Your task to perform on an android device: check out phone information Image 0: 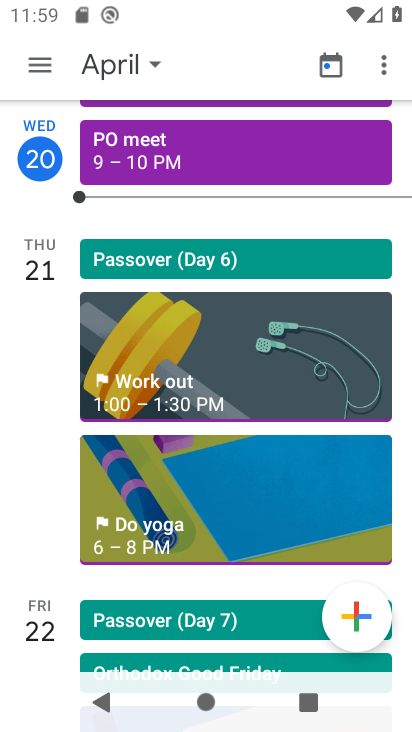
Step 0: press home button
Your task to perform on an android device: check out phone information Image 1: 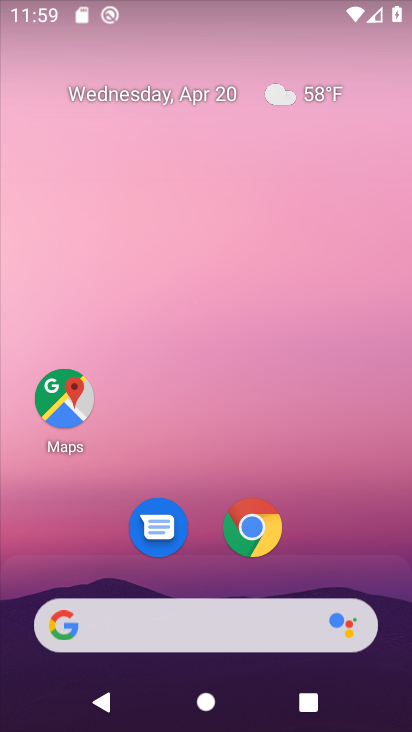
Step 1: drag from (312, 542) to (272, 105)
Your task to perform on an android device: check out phone information Image 2: 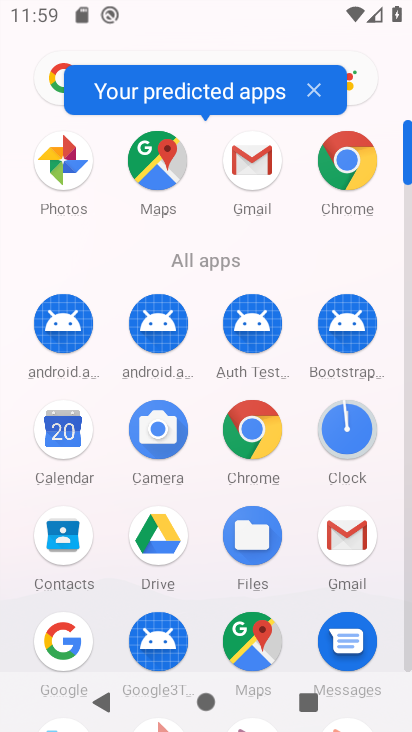
Step 2: drag from (294, 576) to (294, 260)
Your task to perform on an android device: check out phone information Image 3: 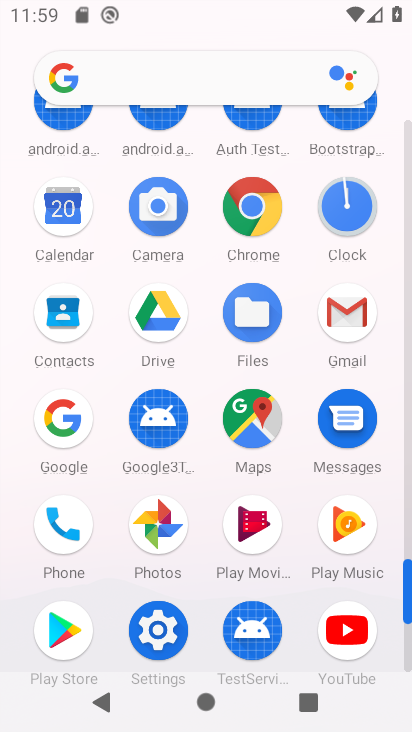
Step 3: drag from (297, 604) to (302, 125)
Your task to perform on an android device: check out phone information Image 4: 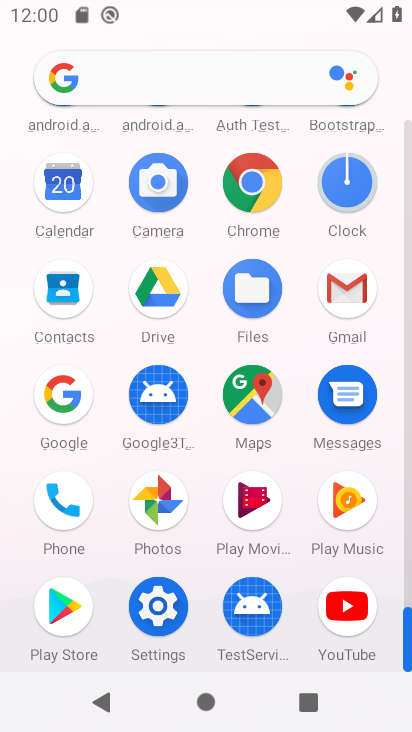
Step 4: drag from (291, 292) to (291, 435)
Your task to perform on an android device: check out phone information Image 5: 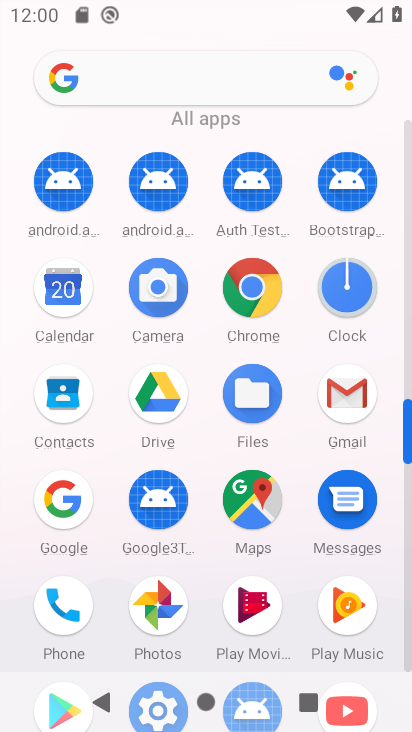
Step 5: click (69, 627)
Your task to perform on an android device: check out phone information Image 6: 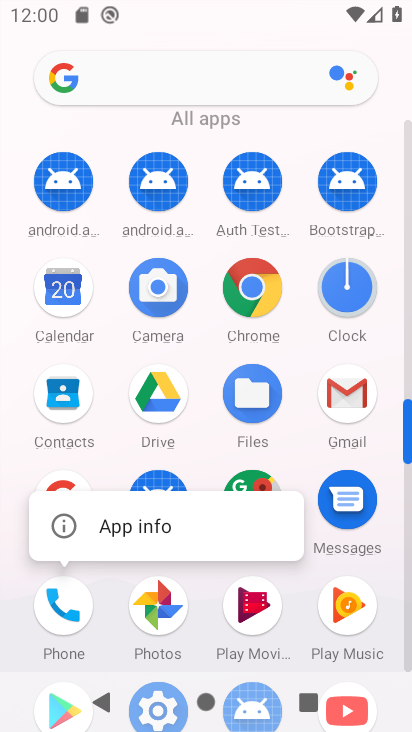
Step 6: click (73, 602)
Your task to perform on an android device: check out phone information Image 7: 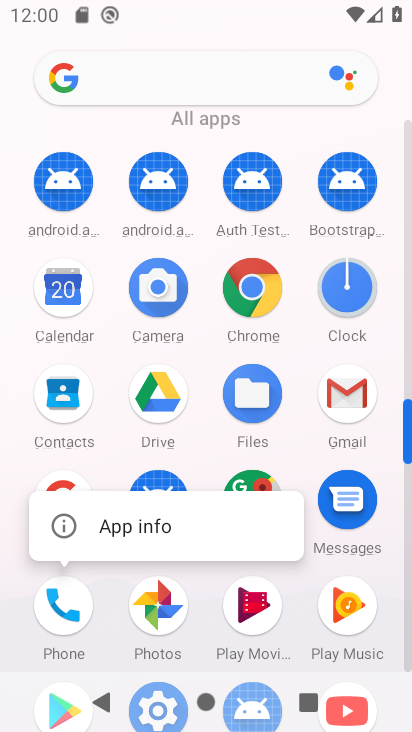
Step 7: click (71, 635)
Your task to perform on an android device: check out phone information Image 8: 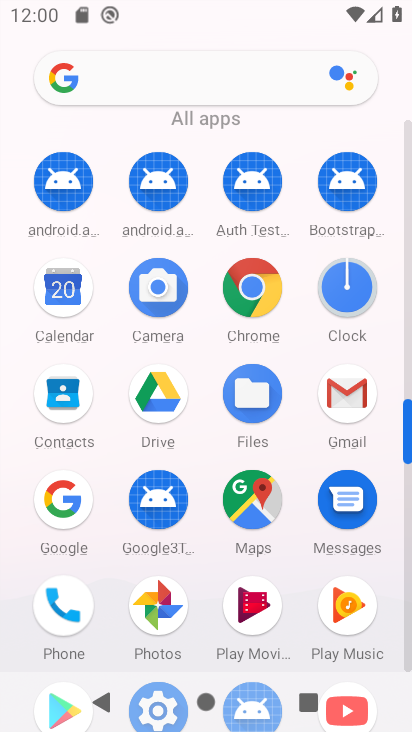
Step 8: click (76, 624)
Your task to perform on an android device: check out phone information Image 9: 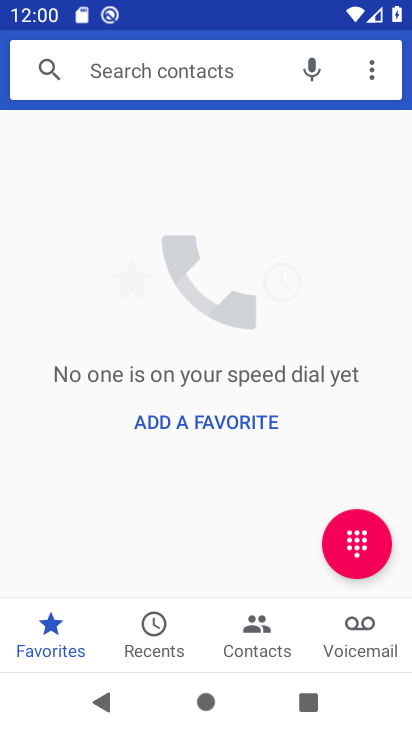
Step 9: click (371, 75)
Your task to perform on an android device: check out phone information Image 10: 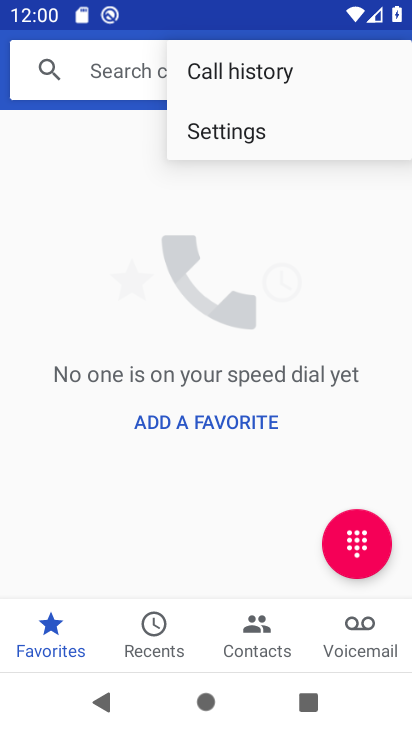
Step 10: click (299, 133)
Your task to perform on an android device: check out phone information Image 11: 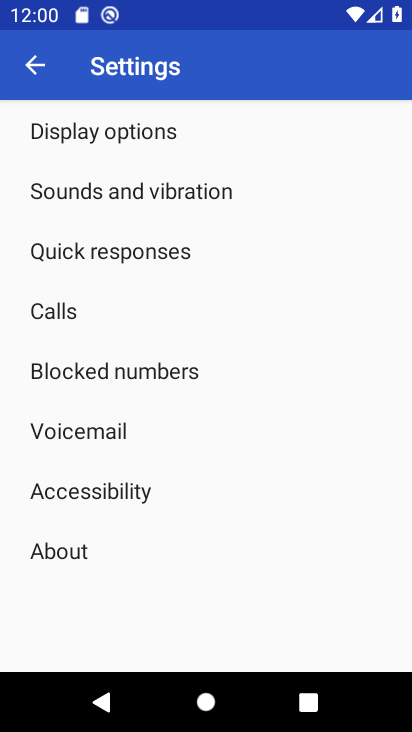
Step 11: click (79, 552)
Your task to perform on an android device: check out phone information Image 12: 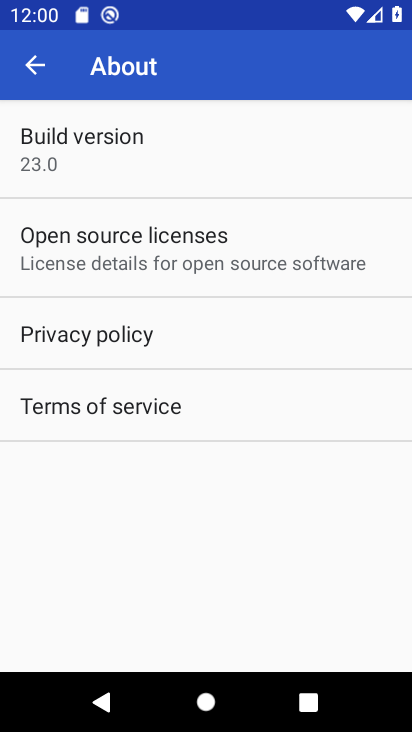
Step 12: task complete